Your task to perform on an android device: Show me productivity apps on the Play Store Image 0: 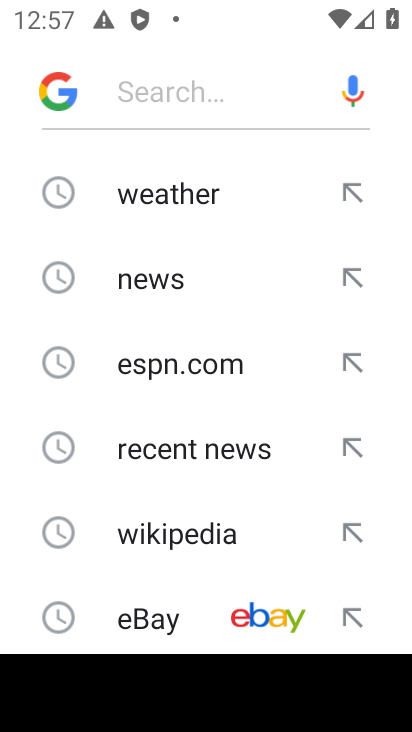
Step 0: press home button
Your task to perform on an android device: Show me productivity apps on the Play Store Image 1: 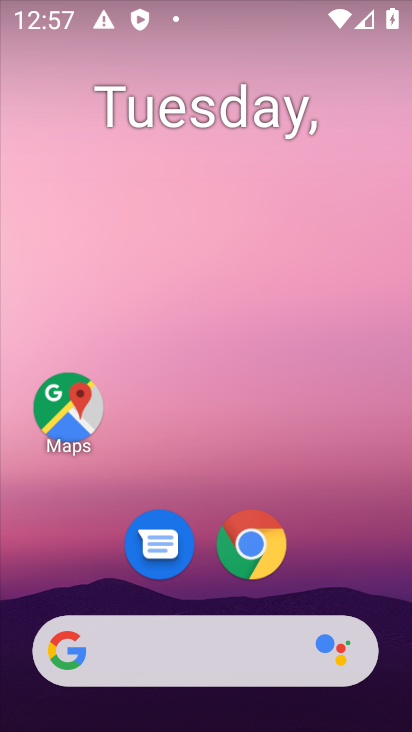
Step 1: drag from (370, 500) to (357, 66)
Your task to perform on an android device: Show me productivity apps on the Play Store Image 2: 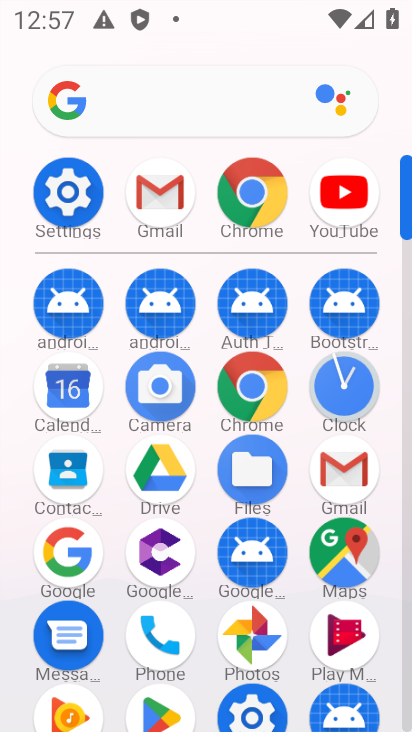
Step 2: drag from (300, 515) to (340, 185)
Your task to perform on an android device: Show me productivity apps on the Play Store Image 3: 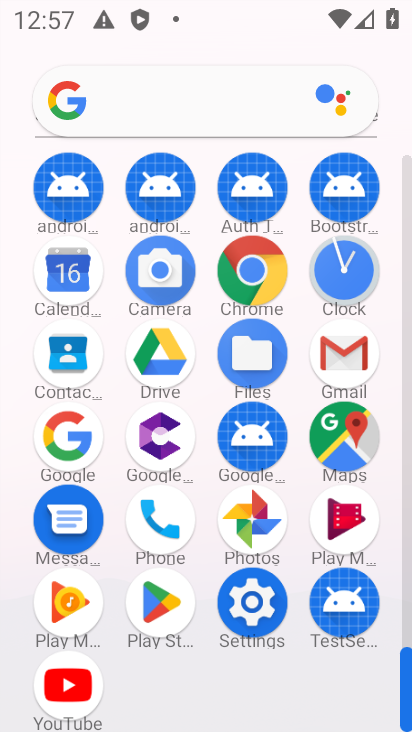
Step 3: click (176, 588)
Your task to perform on an android device: Show me productivity apps on the Play Store Image 4: 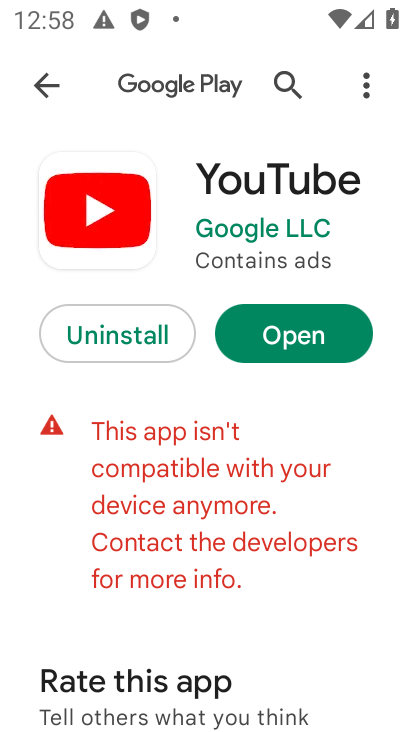
Step 4: click (49, 72)
Your task to perform on an android device: Show me productivity apps on the Play Store Image 5: 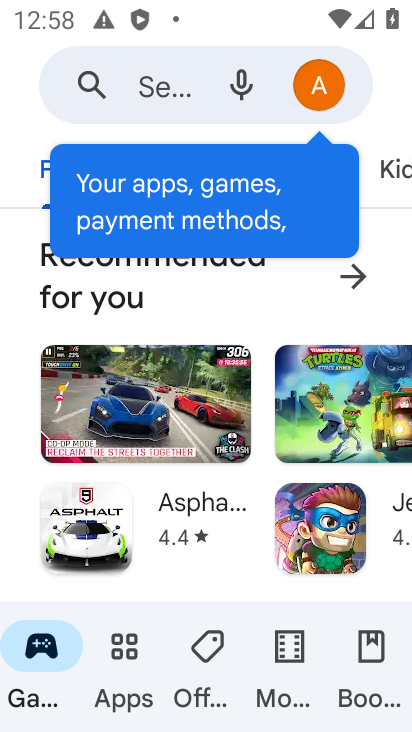
Step 5: click (134, 654)
Your task to perform on an android device: Show me productivity apps on the Play Store Image 6: 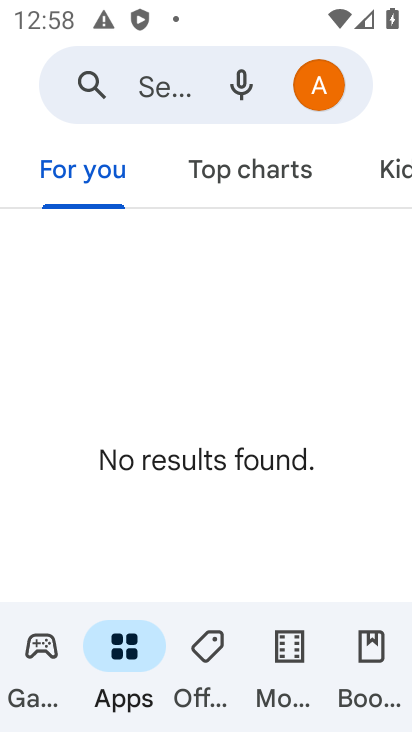
Step 6: drag from (265, 526) to (271, 306)
Your task to perform on an android device: Show me productivity apps on the Play Store Image 7: 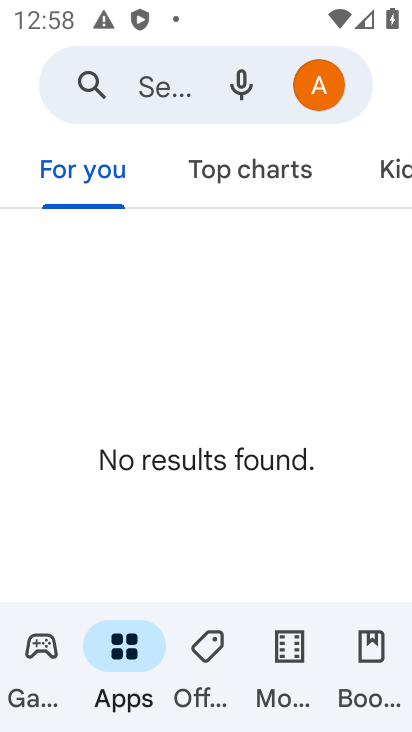
Step 7: click (116, 649)
Your task to perform on an android device: Show me productivity apps on the Play Store Image 8: 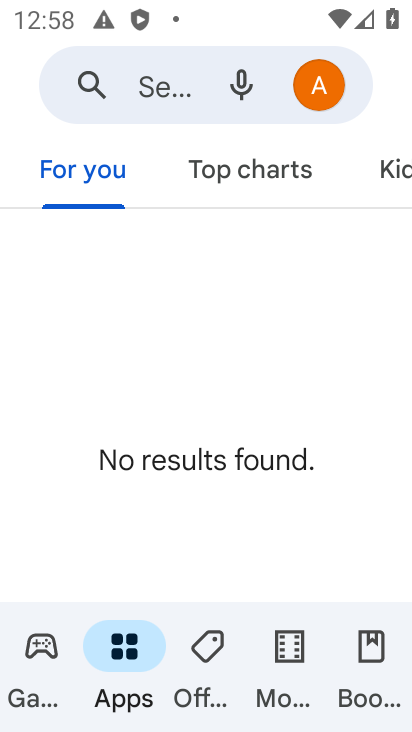
Step 8: drag from (208, 435) to (271, 80)
Your task to perform on an android device: Show me productivity apps on the Play Store Image 9: 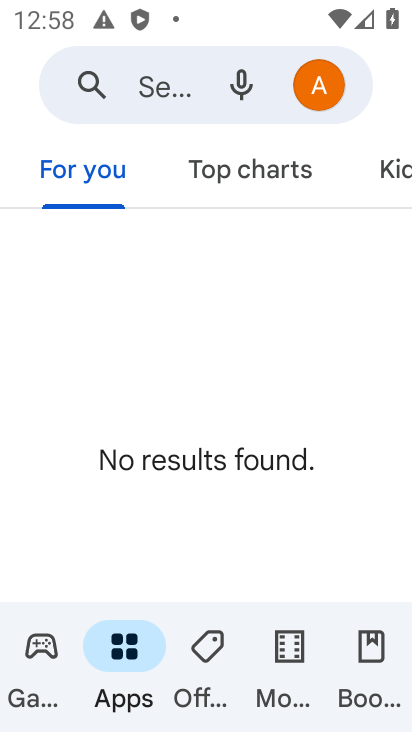
Step 9: click (35, 673)
Your task to perform on an android device: Show me productivity apps on the Play Store Image 10: 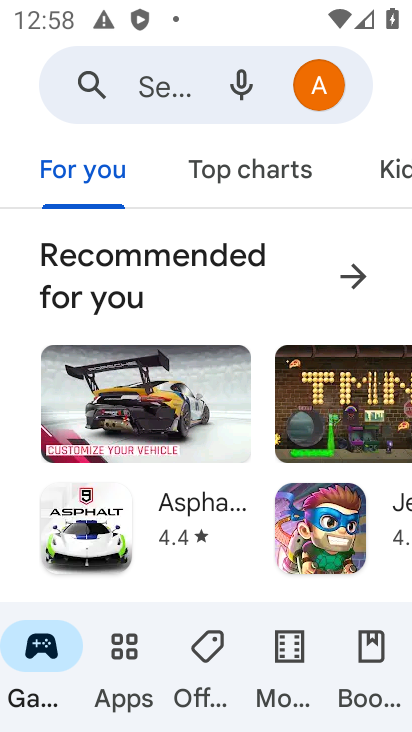
Step 10: click (129, 654)
Your task to perform on an android device: Show me productivity apps on the Play Store Image 11: 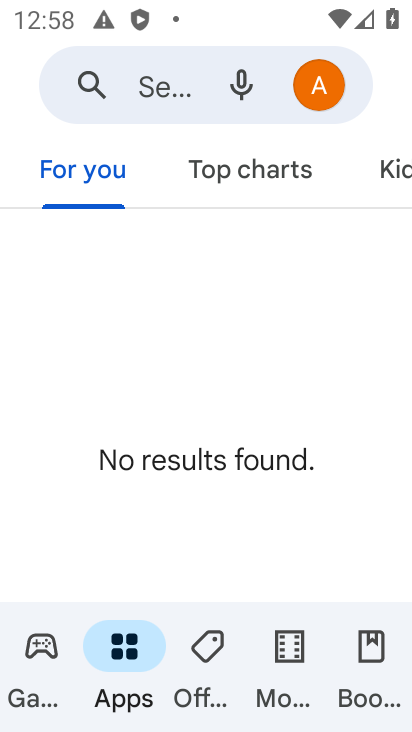
Step 11: task complete